Your task to perform on an android device: Open Google Chrome and click the shortcut for Amazon.com Image 0: 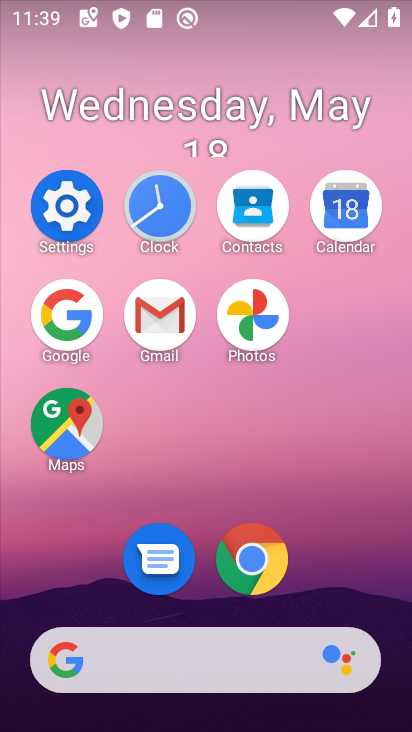
Step 0: click (244, 556)
Your task to perform on an android device: Open Google Chrome and click the shortcut for Amazon.com Image 1: 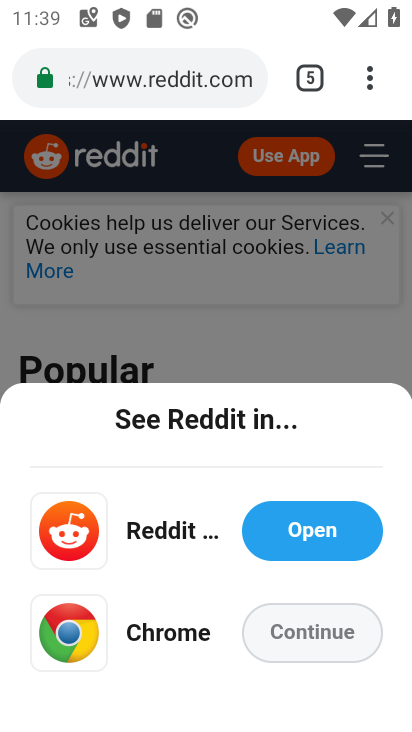
Step 1: click (303, 82)
Your task to perform on an android device: Open Google Chrome and click the shortcut for Amazon.com Image 2: 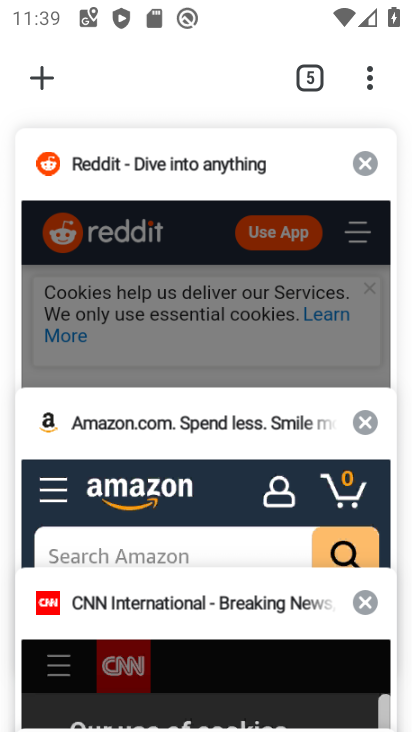
Step 2: click (155, 440)
Your task to perform on an android device: Open Google Chrome and click the shortcut for Amazon.com Image 3: 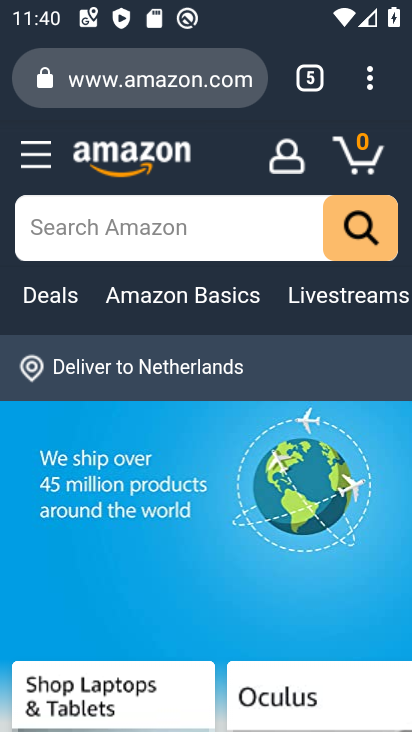
Step 3: click (366, 88)
Your task to perform on an android device: Open Google Chrome and click the shortcut for Amazon.com Image 4: 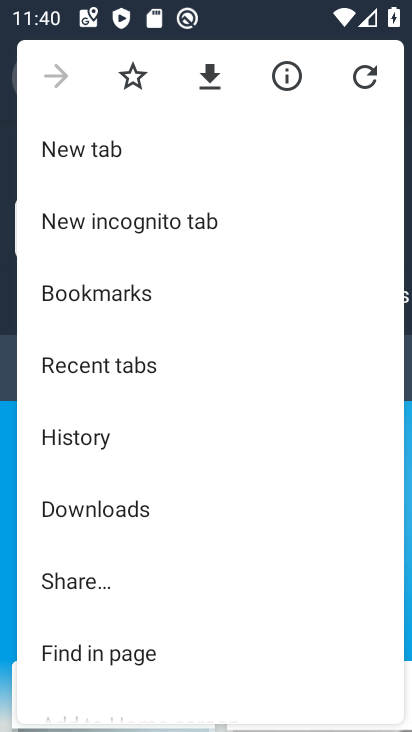
Step 4: drag from (194, 556) to (257, 230)
Your task to perform on an android device: Open Google Chrome and click the shortcut for Amazon.com Image 5: 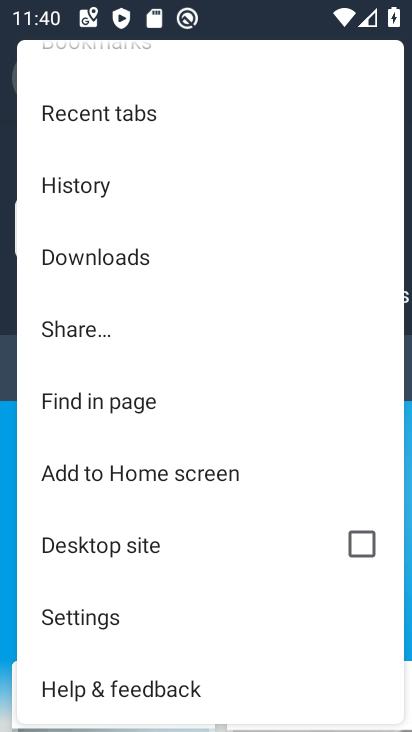
Step 5: click (212, 460)
Your task to perform on an android device: Open Google Chrome and click the shortcut for Amazon.com Image 6: 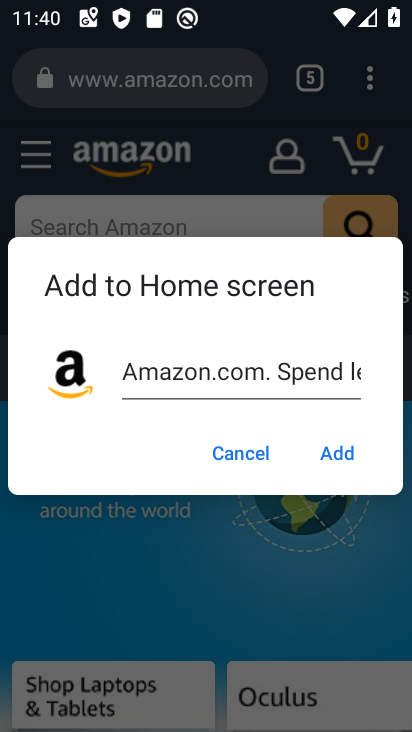
Step 6: click (336, 460)
Your task to perform on an android device: Open Google Chrome and click the shortcut for Amazon.com Image 7: 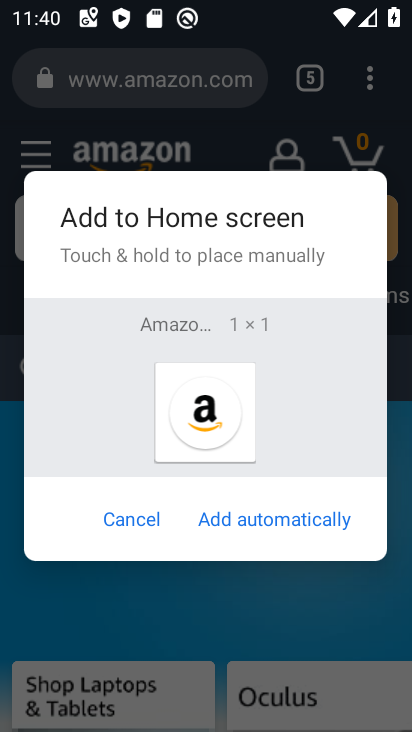
Step 7: click (312, 514)
Your task to perform on an android device: Open Google Chrome and click the shortcut for Amazon.com Image 8: 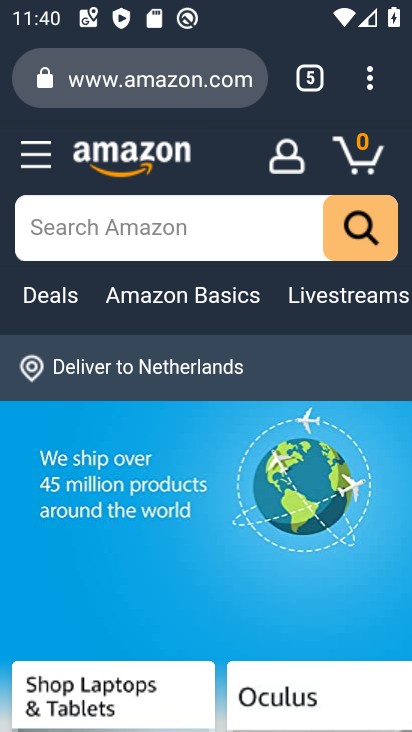
Step 8: task complete